Your task to perform on an android device: turn pop-ups off in chrome Image 0: 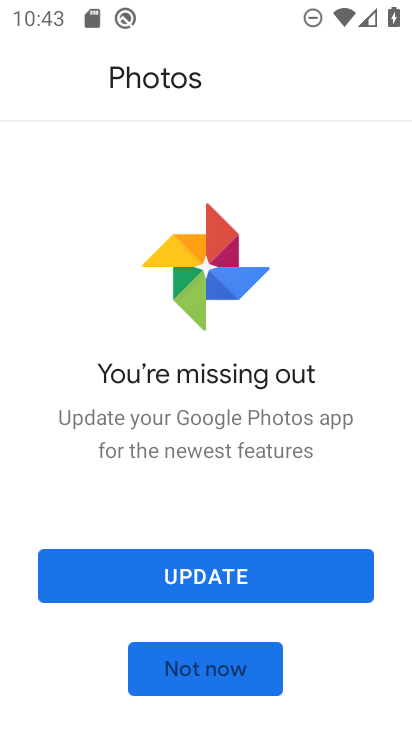
Step 0: press home button
Your task to perform on an android device: turn pop-ups off in chrome Image 1: 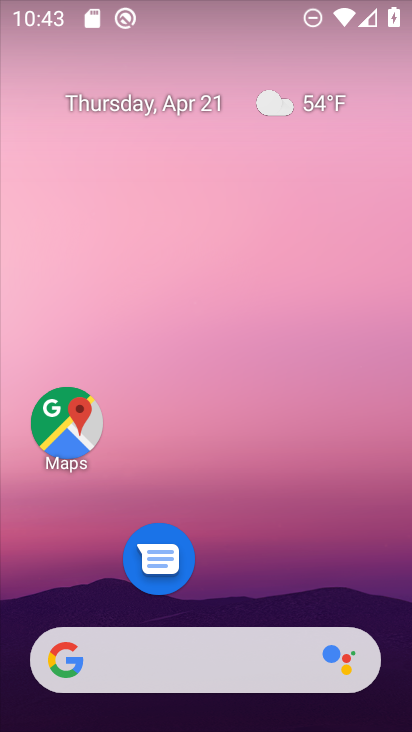
Step 1: drag from (289, 479) to (260, 151)
Your task to perform on an android device: turn pop-ups off in chrome Image 2: 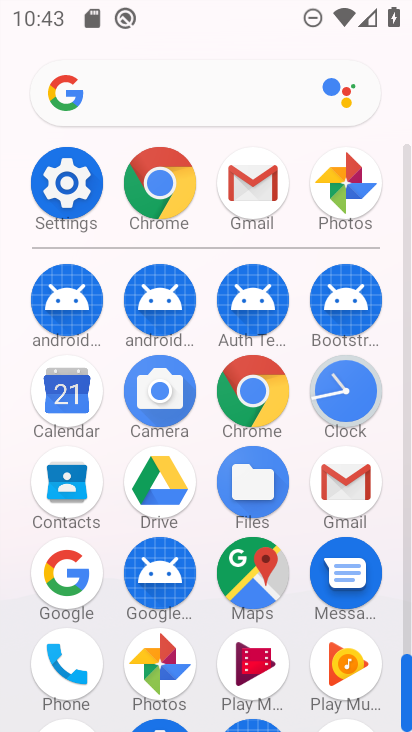
Step 2: click (176, 186)
Your task to perform on an android device: turn pop-ups off in chrome Image 3: 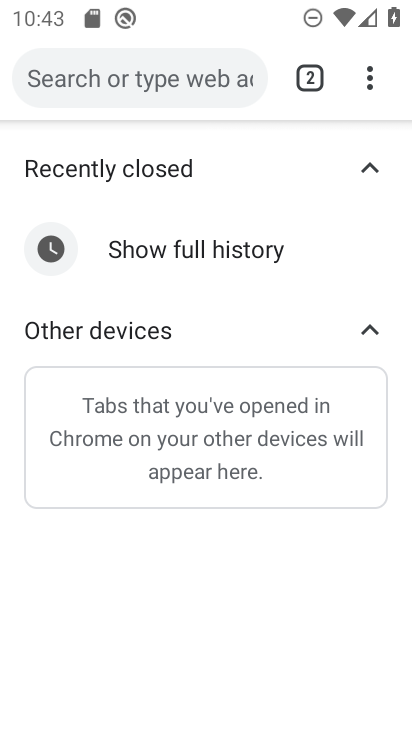
Step 3: drag from (366, 71) to (151, 604)
Your task to perform on an android device: turn pop-ups off in chrome Image 4: 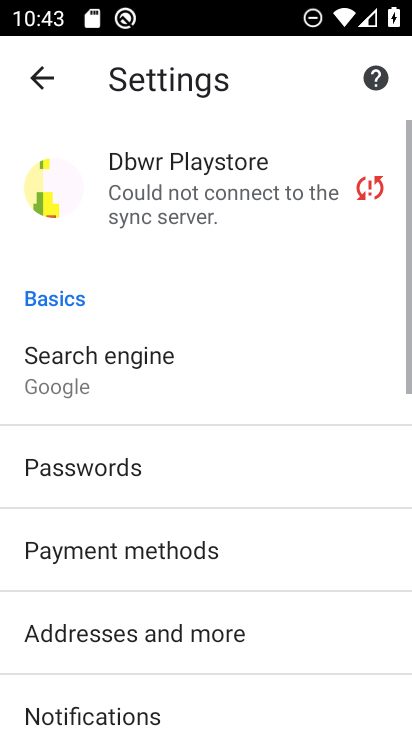
Step 4: drag from (150, 664) to (266, 94)
Your task to perform on an android device: turn pop-ups off in chrome Image 5: 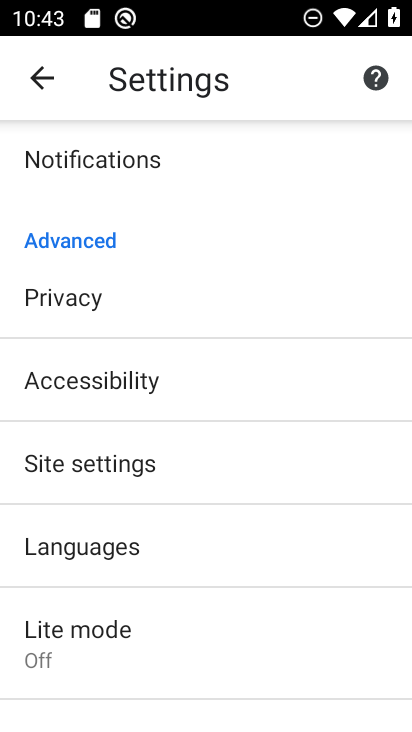
Step 5: click (136, 464)
Your task to perform on an android device: turn pop-ups off in chrome Image 6: 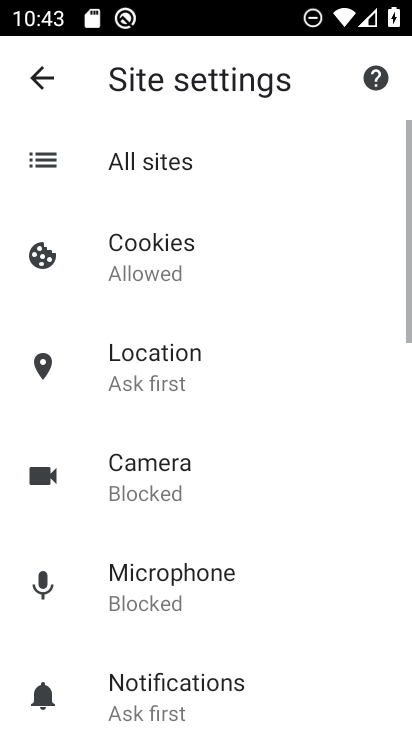
Step 6: drag from (202, 627) to (283, 101)
Your task to perform on an android device: turn pop-ups off in chrome Image 7: 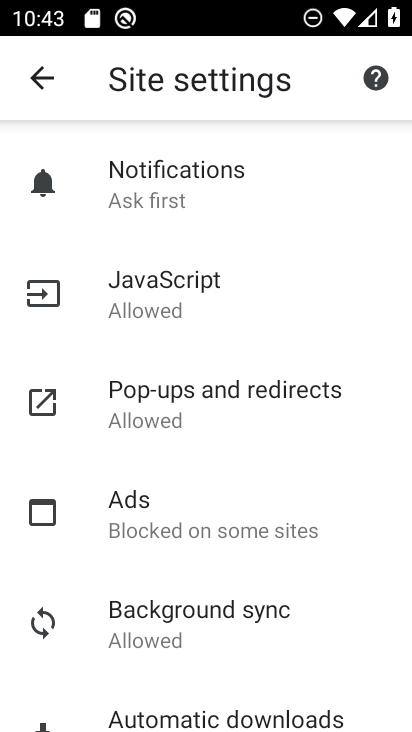
Step 7: click (135, 390)
Your task to perform on an android device: turn pop-ups off in chrome Image 8: 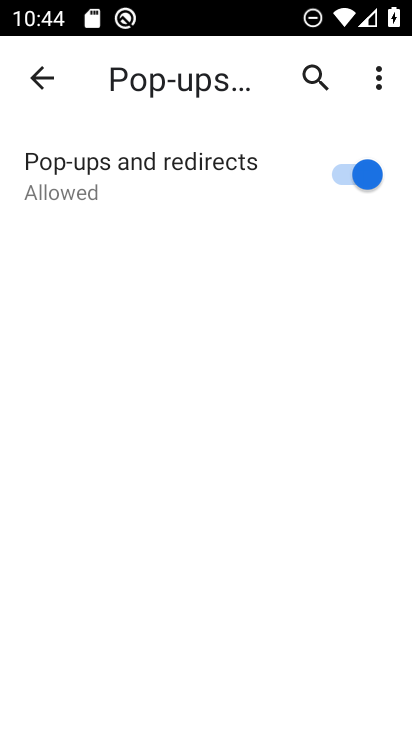
Step 8: click (355, 170)
Your task to perform on an android device: turn pop-ups off in chrome Image 9: 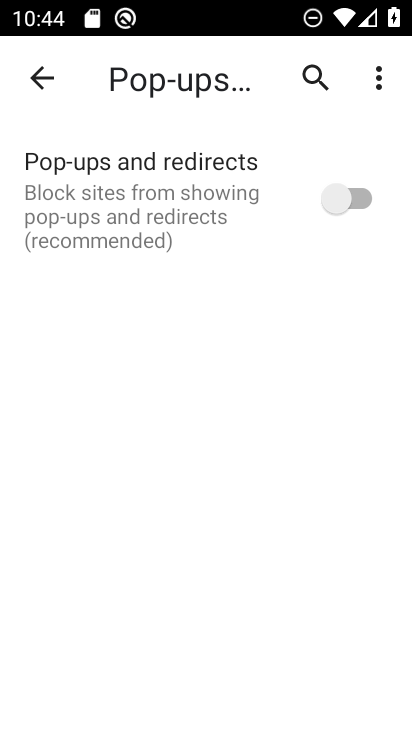
Step 9: task complete